Your task to perform on an android device: Open ESPN.com Image 0: 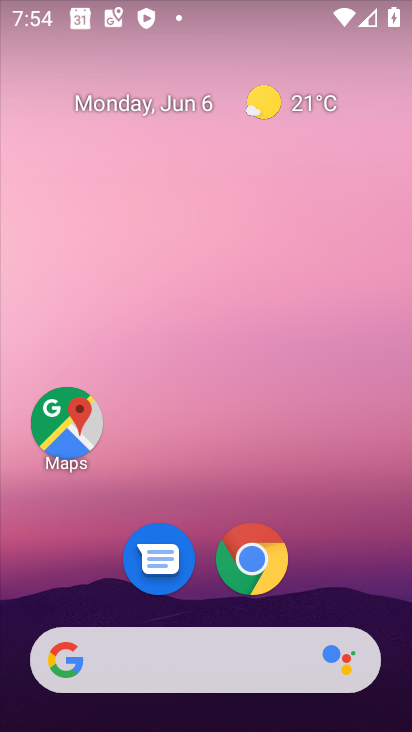
Step 0: click (263, 556)
Your task to perform on an android device: Open ESPN.com Image 1: 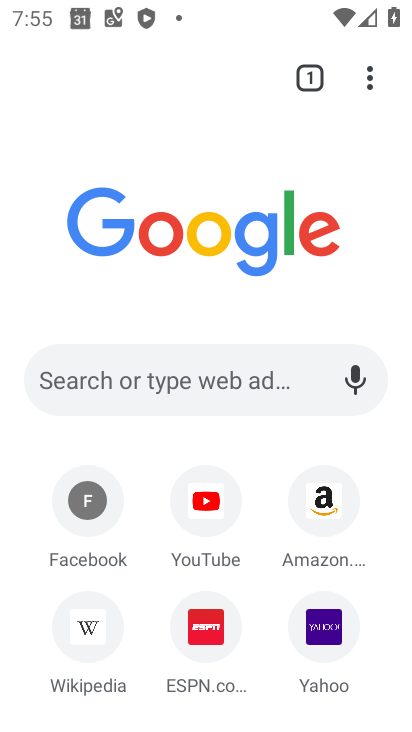
Step 1: click (210, 637)
Your task to perform on an android device: Open ESPN.com Image 2: 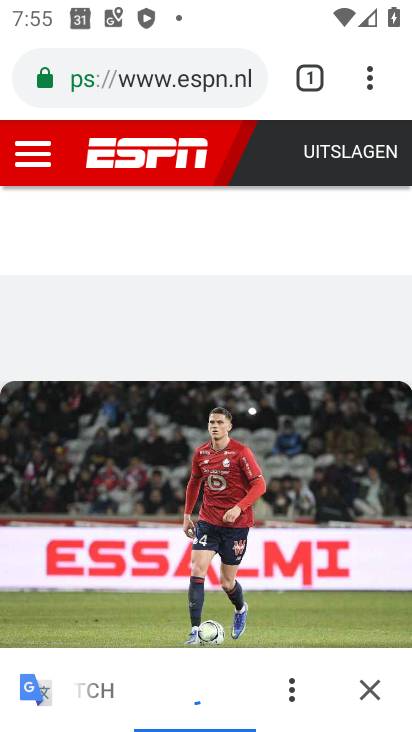
Step 2: task complete